Your task to perform on an android device: Open the web browser Image 0: 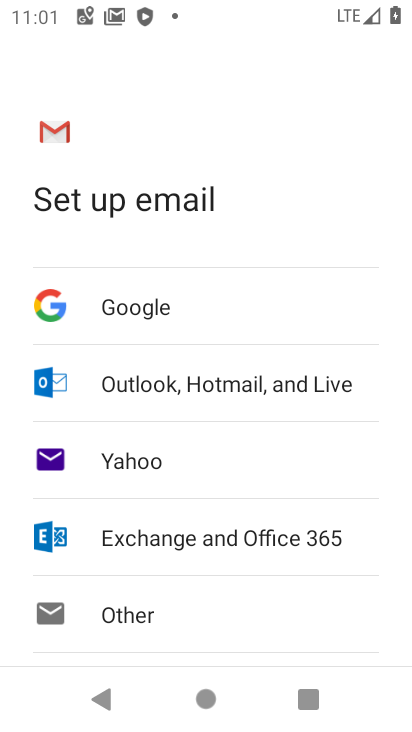
Step 0: press home button
Your task to perform on an android device: Open the web browser Image 1: 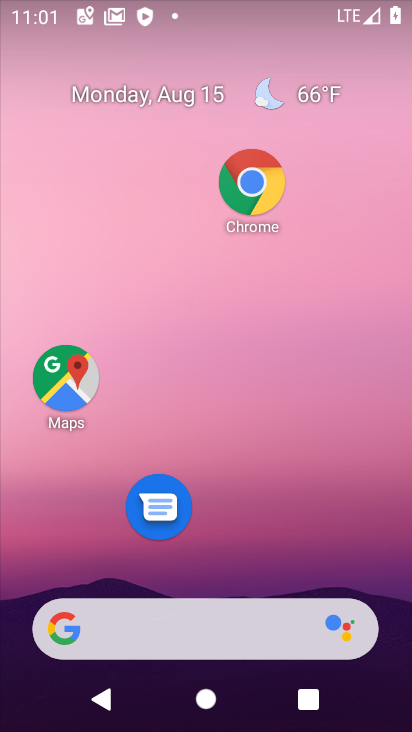
Step 1: click (267, 156)
Your task to perform on an android device: Open the web browser Image 2: 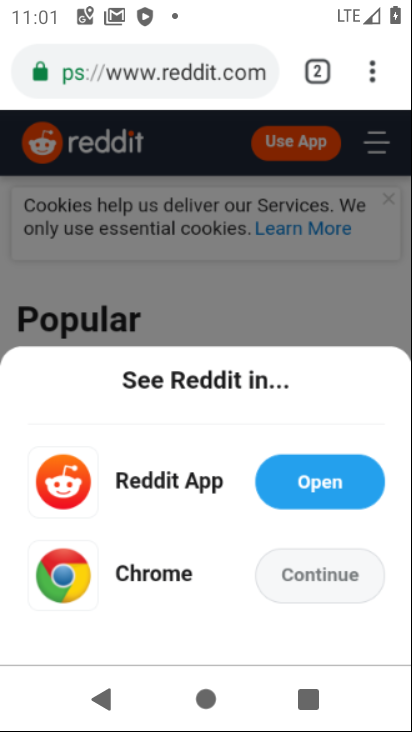
Step 2: task complete